Your task to perform on an android device: change keyboard looks Image 0: 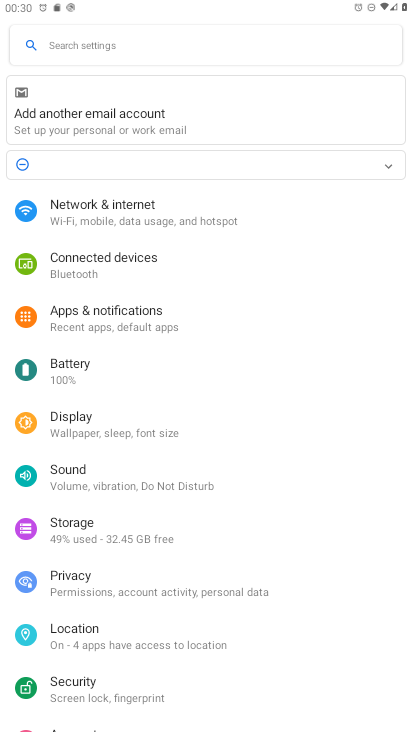
Step 0: press home button
Your task to perform on an android device: change keyboard looks Image 1: 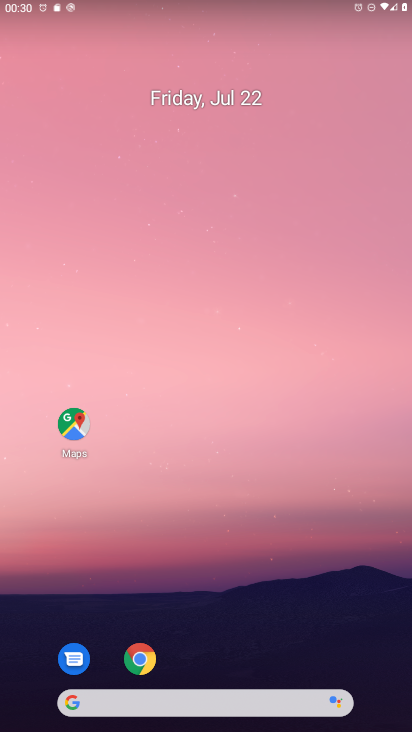
Step 1: drag from (196, 696) to (250, 45)
Your task to perform on an android device: change keyboard looks Image 2: 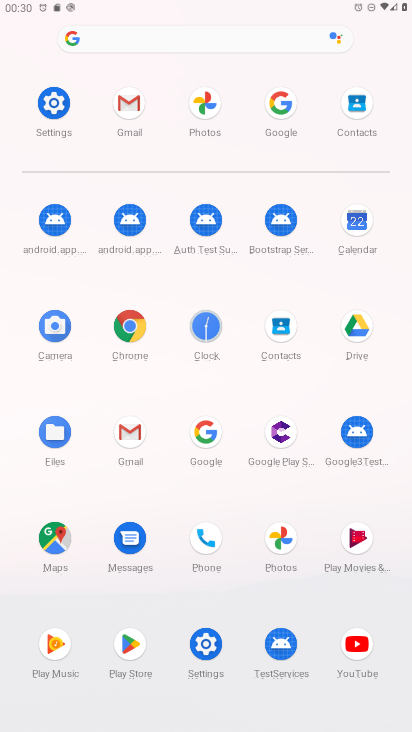
Step 2: click (53, 103)
Your task to perform on an android device: change keyboard looks Image 3: 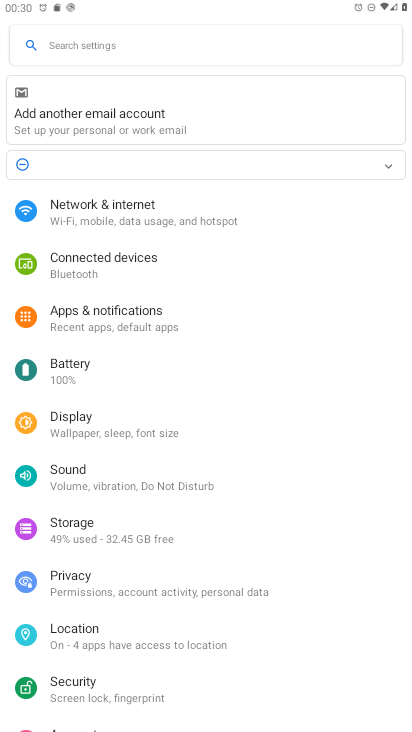
Step 3: drag from (72, 552) to (123, 455)
Your task to perform on an android device: change keyboard looks Image 4: 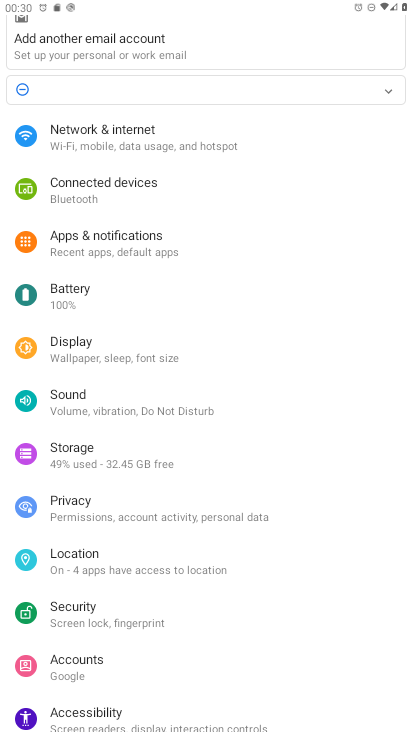
Step 4: drag from (74, 589) to (145, 497)
Your task to perform on an android device: change keyboard looks Image 5: 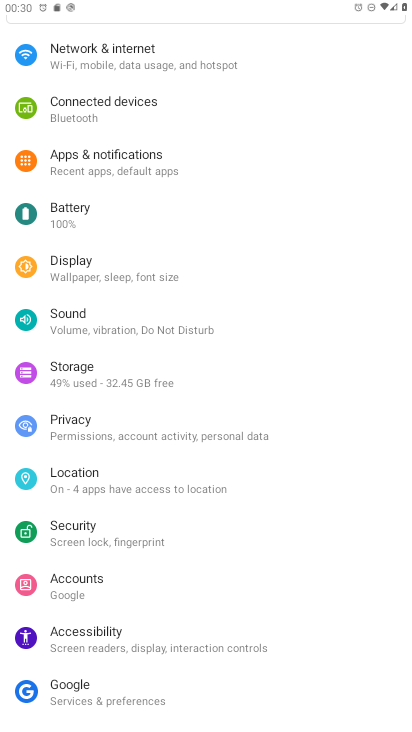
Step 5: drag from (101, 660) to (217, 519)
Your task to perform on an android device: change keyboard looks Image 6: 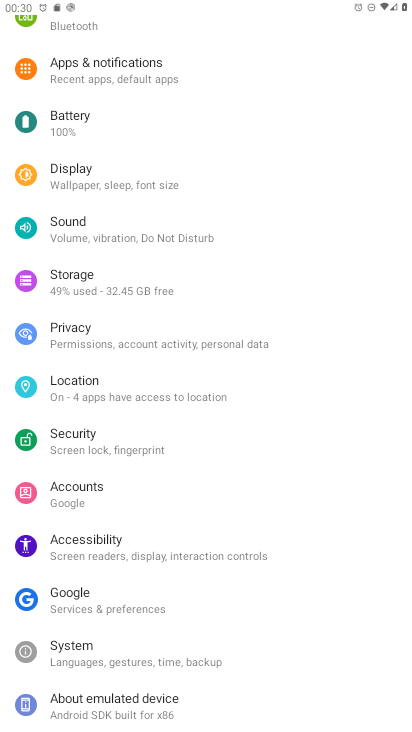
Step 6: click (81, 651)
Your task to perform on an android device: change keyboard looks Image 7: 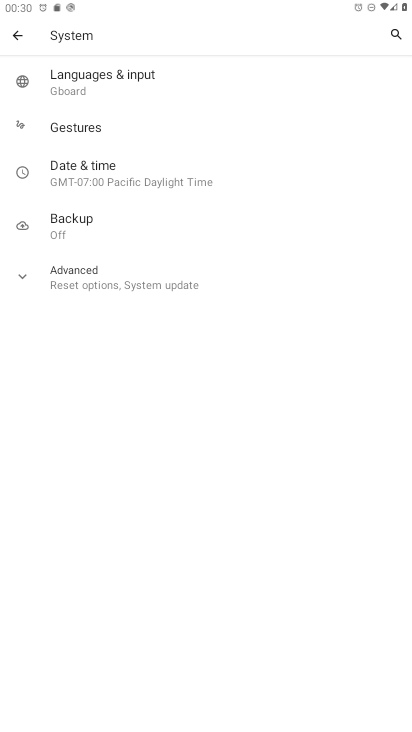
Step 7: click (84, 87)
Your task to perform on an android device: change keyboard looks Image 8: 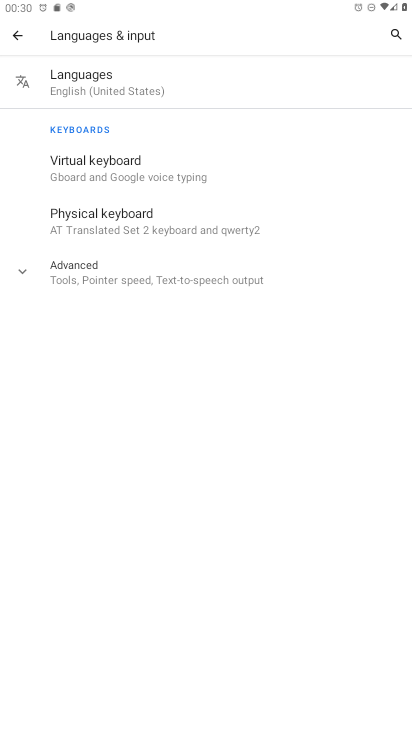
Step 8: click (100, 174)
Your task to perform on an android device: change keyboard looks Image 9: 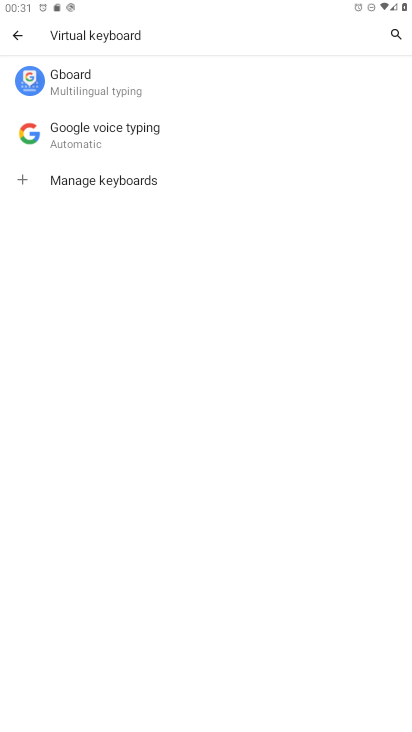
Step 9: click (66, 83)
Your task to perform on an android device: change keyboard looks Image 10: 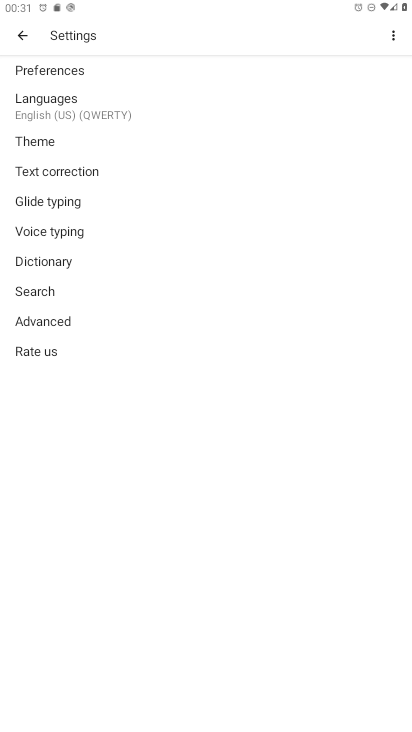
Step 10: click (48, 142)
Your task to perform on an android device: change keyboard looks Image 11: 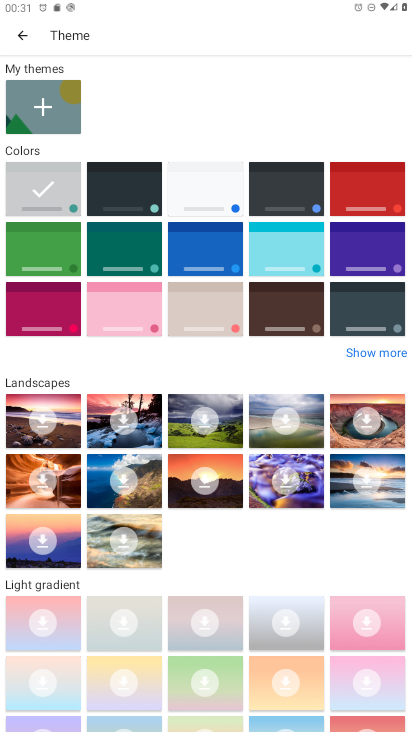
Step 11: click (198, 199)
Your task to perform on an android device: change keyboard looks Image 12: 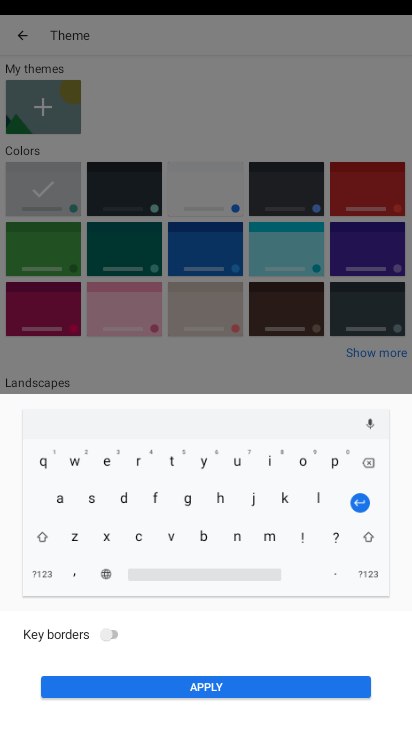
Step 12: click (107, 630)
Your task to perform on an android device: change keyboard looks Image 13: 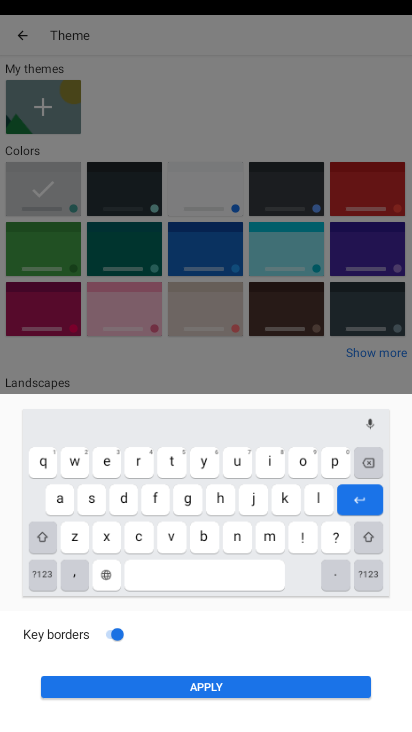
Step 13: click (201, 686)
Your task to perform on an android device: change keyboard looks Image 14: 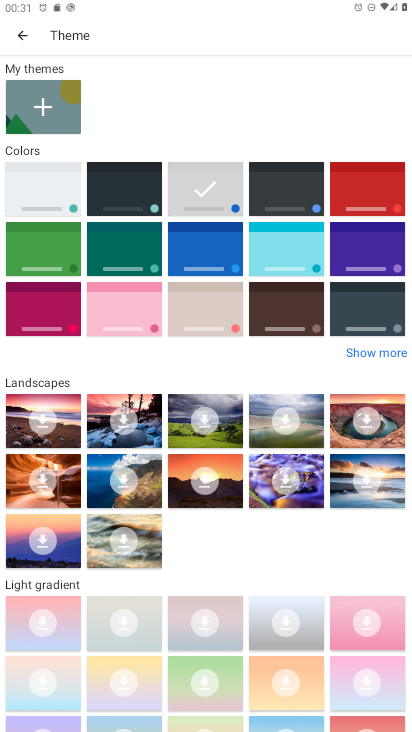
Step 14: task complete